Your task to perform on an android device: open device folders in google photos Image 0: 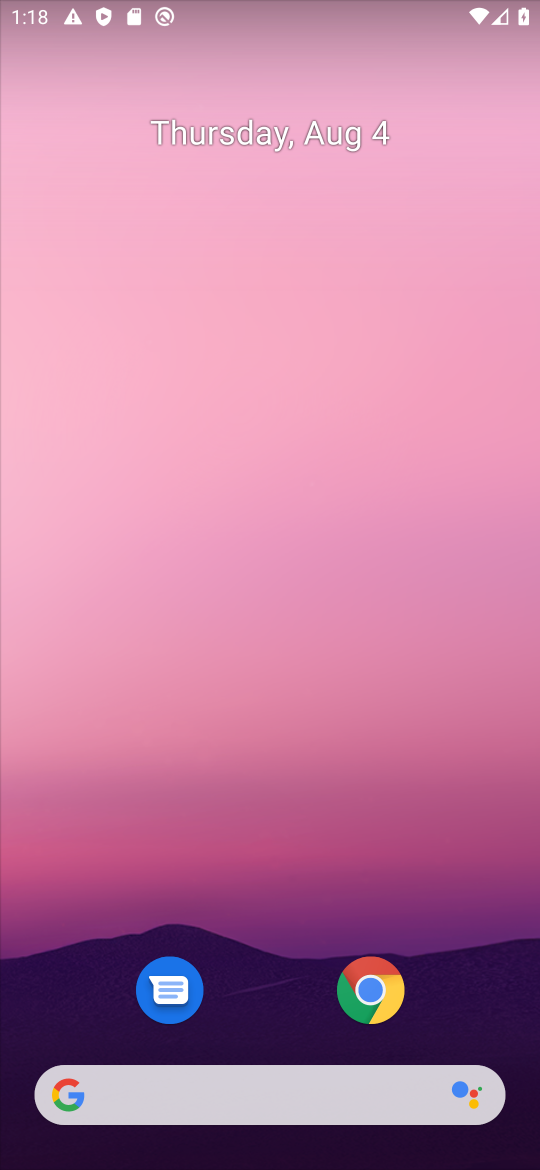
Step 0: drag from (312, 1032) to (330, 97)
Your task to perform on an android device: open device folders in google photos Image 1: 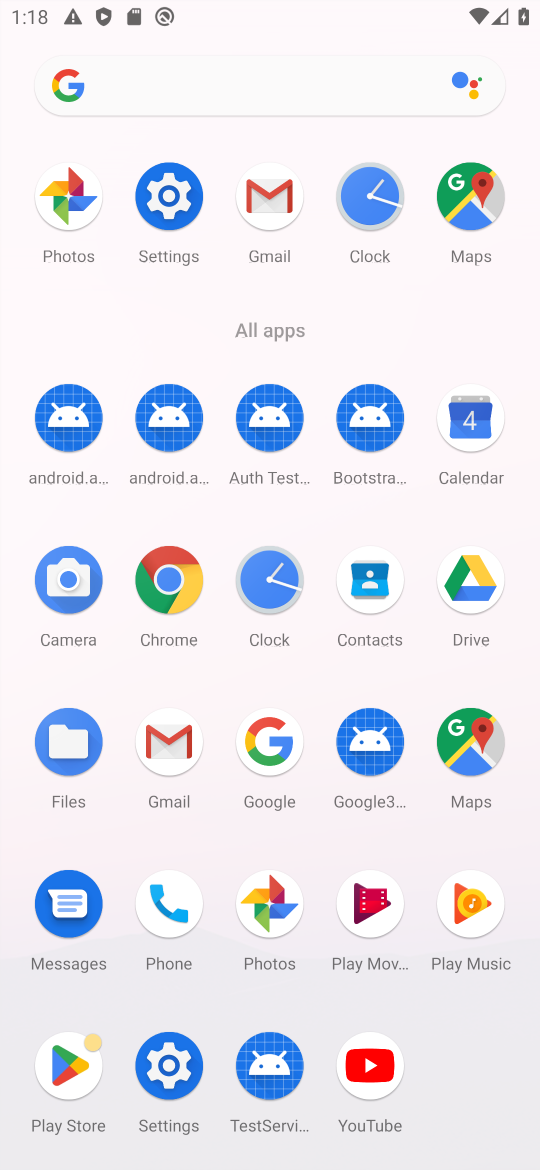
Step 1: click (287, 958)
Your task to perform on an android device: open device folders in google photos Image 2: 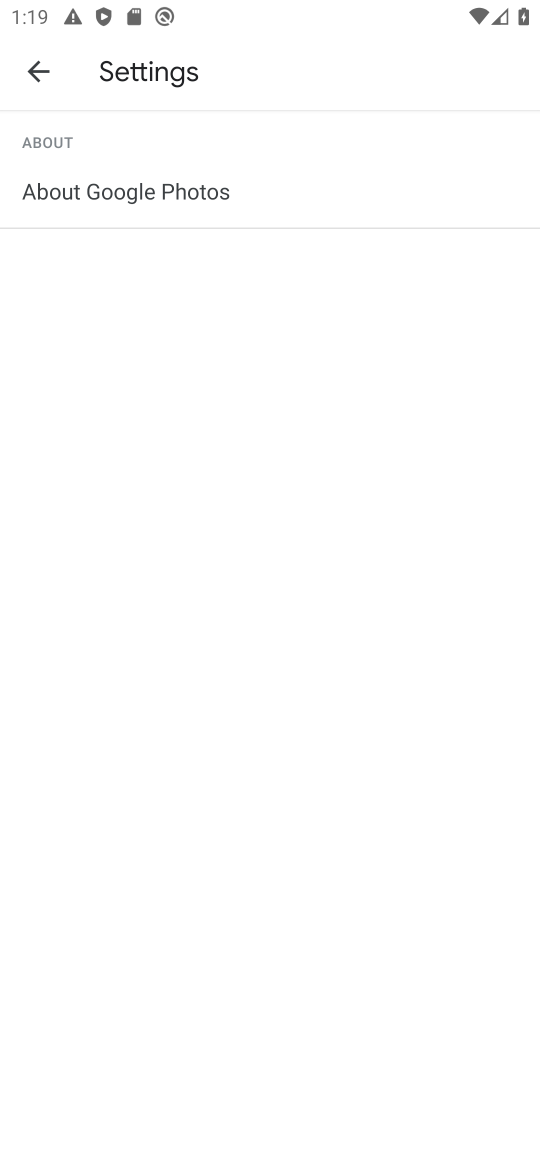
Step 2: click (51, 88)
Your task to perform on an android device: open device folders in google photos Image 3: 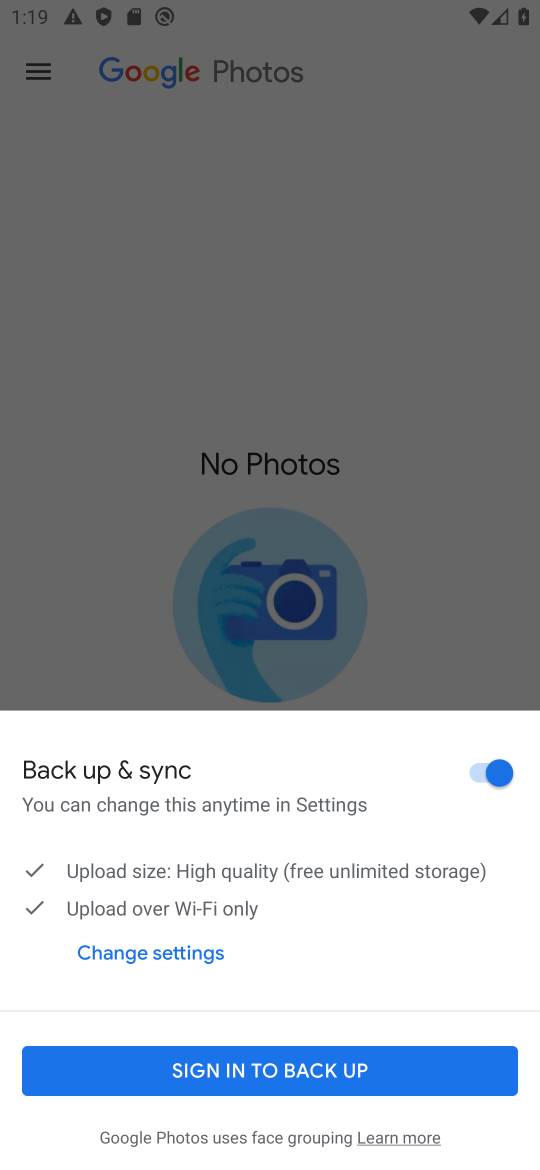
Step 3: click (200, 207)
Your task to perform on an android device: open device folders in google photos Image 4: 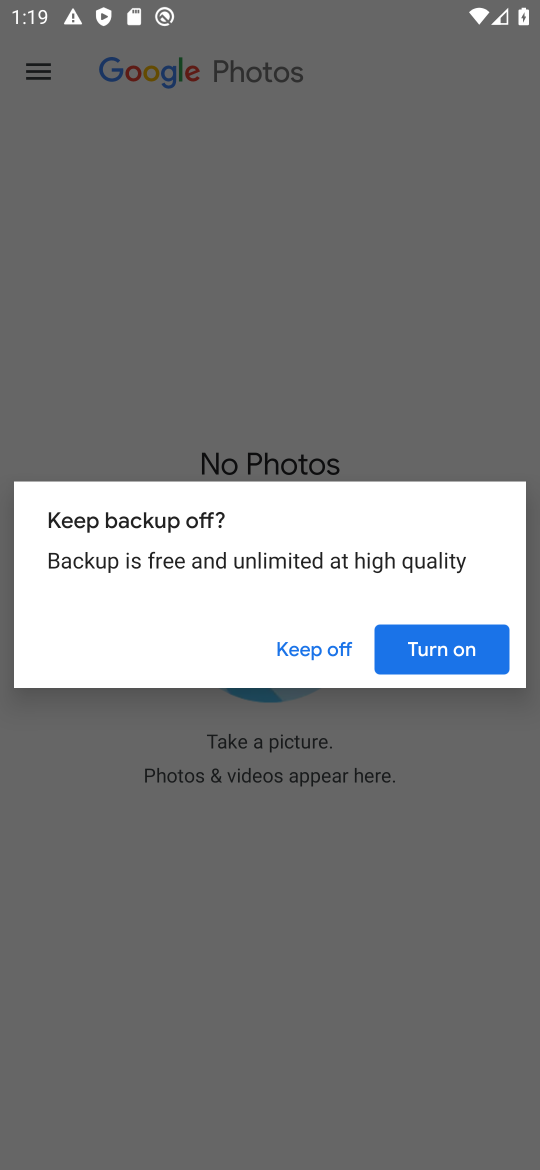
Step 4: click (404, 636)
Your task to perform on an android device: open device folders in google photos Image 5: 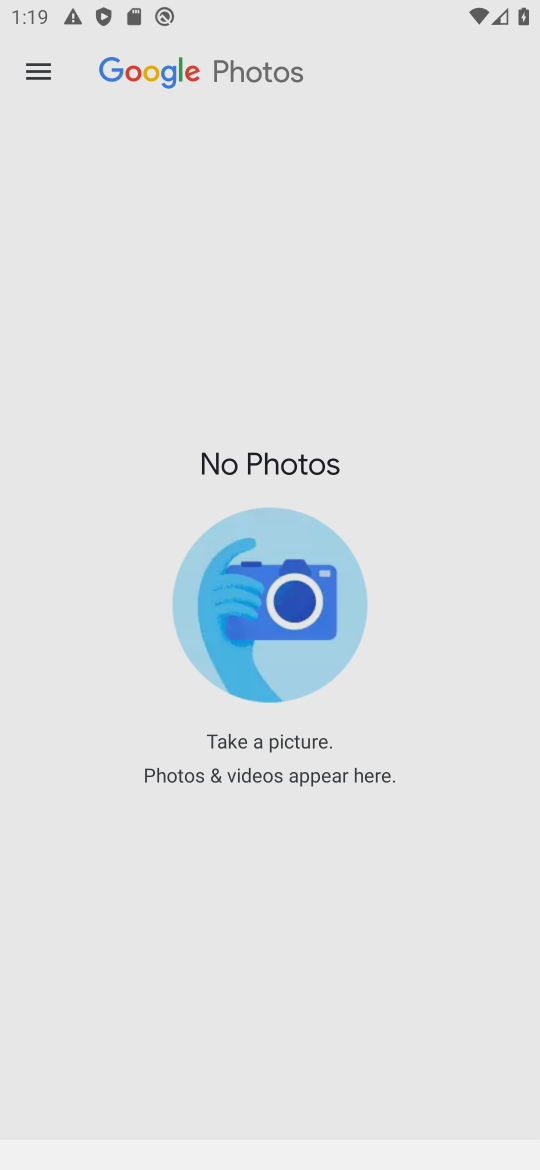
Step 5: task complete